Your task to perform on an android device: choose inbox layout in the gmail app Image 0: 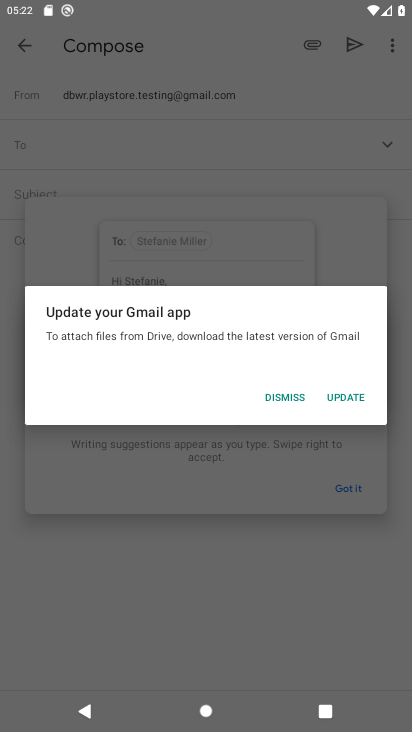
Step 0: press home button
Your task to perform on an android device: choose inbox layout in the gmail app Image 1: 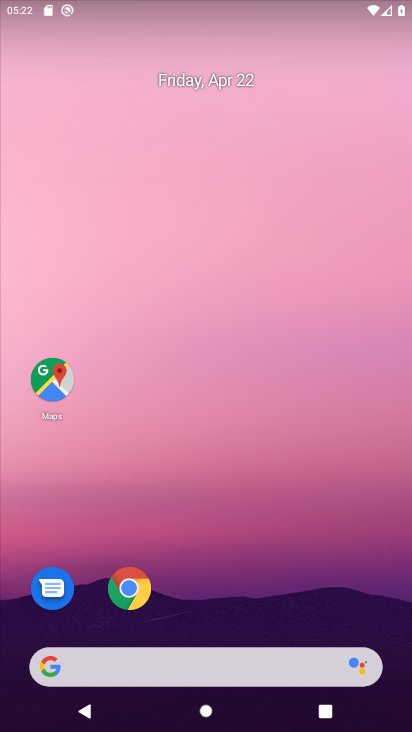
Step 1: drag from (175, 635) to (208, 5)
Your task to perform on an android device: choose inbox layout in the gmail app Image 2: 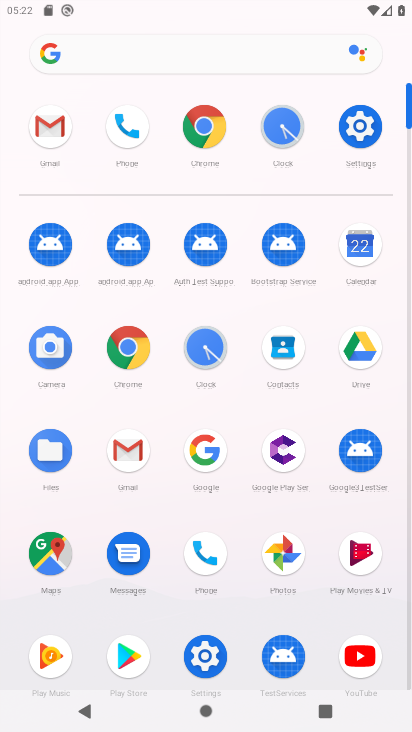
Step 2: click (143, 458)
Your task to perform on an android device: choose inbox layout in the gmail app Image 3: 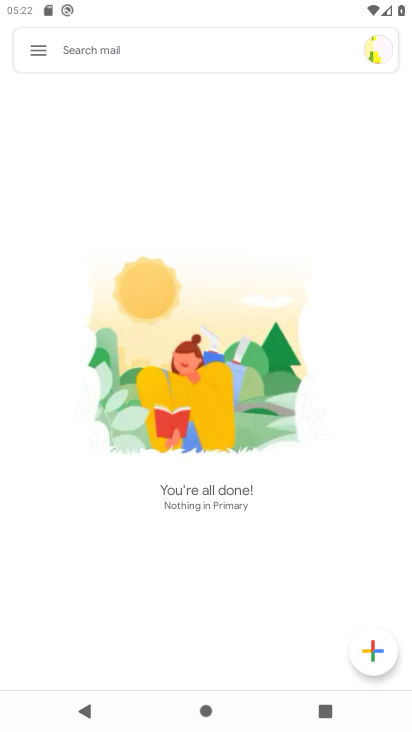
Step 3: click (26, 44)
Your task to perform on an android device: choose inbox layout in the gmail app Image 4: 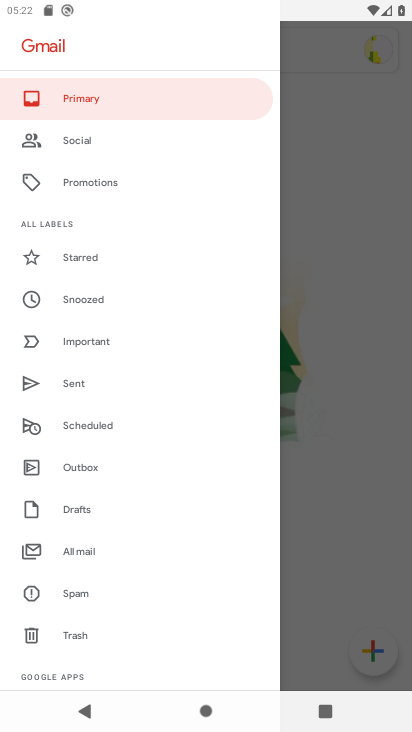
Step 4: drag from (148, 579) to (151, 220)
Your task to perform on an android device: choose inbox layout in the gmail app Image 5: 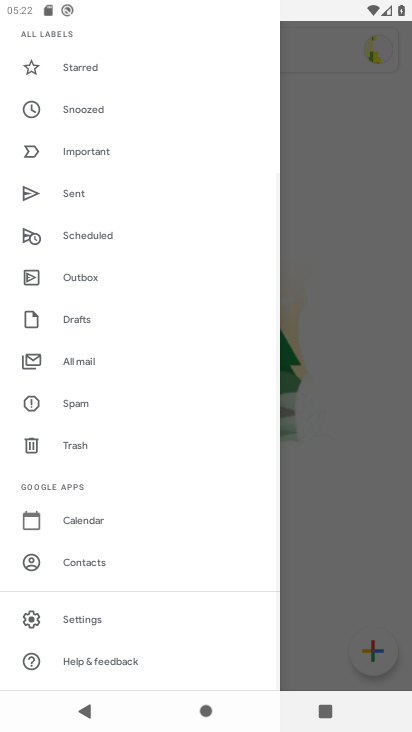
Step 5: click (106, 615)
Your task to perform on an android device: choose inbox layout in the gmail app Image 6: 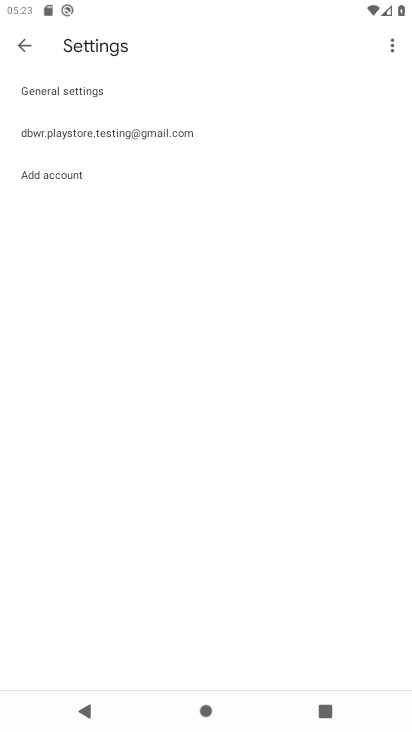
Step 6: click (94, 138)
Your task to perform on an android device: choose inbox layout in the gmail app Image 7: 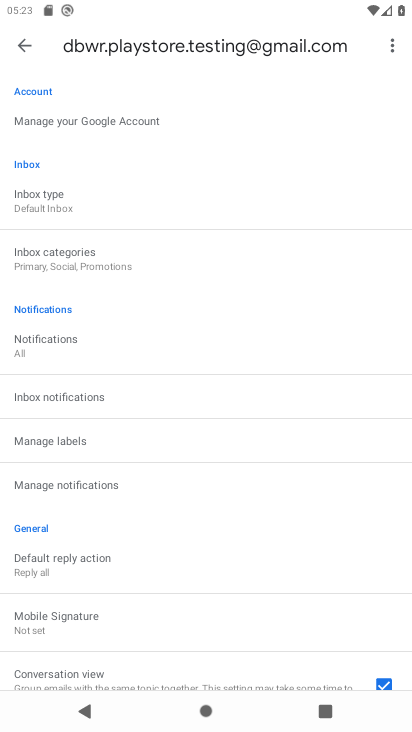
Step 7: click (82, 343)
Your task to perform on an android device: choose inbox layout in the gmail app Image 8: 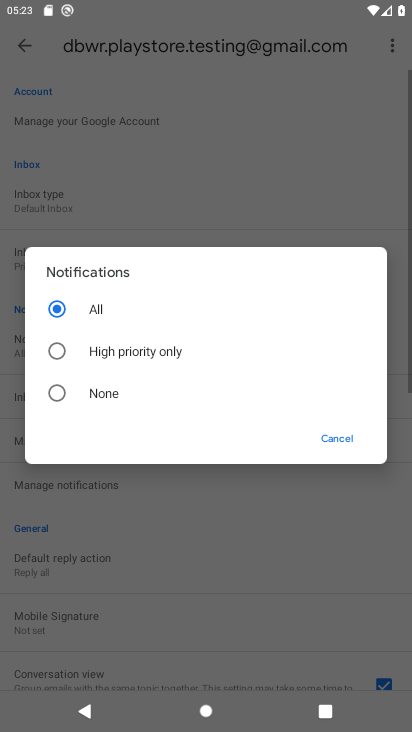
Step 8: click (194, 620)
Your task to perform on an android device: choose inbox layout in the gmail app Image 9: 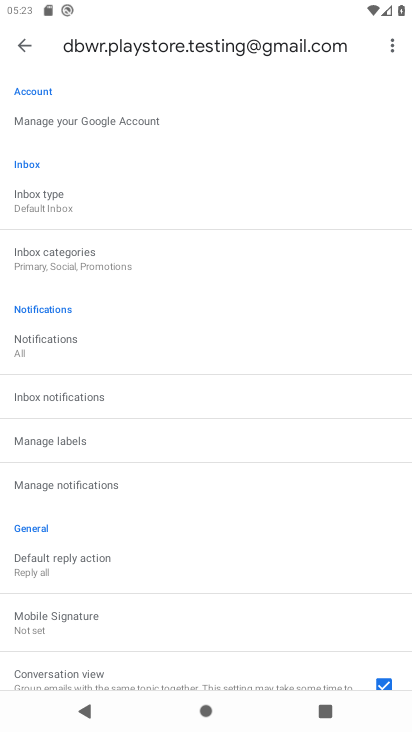
Step 9: click (52, 202)
Your task to perform on an android device: choose inbox layout in the gmail app Image 10: 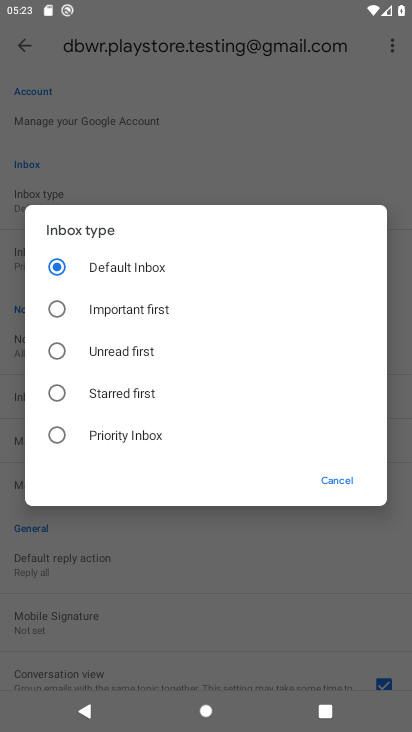
Step 10: click (54, 427)
Your task to perform on an android device: choose inbox layout in the gmail app Image 11: 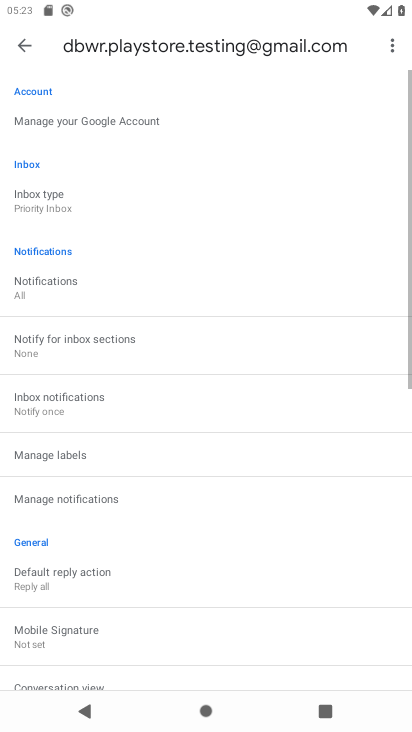
Step 11: task complete